Your task to perform on an android device: Is it going to rain today? Image 0: 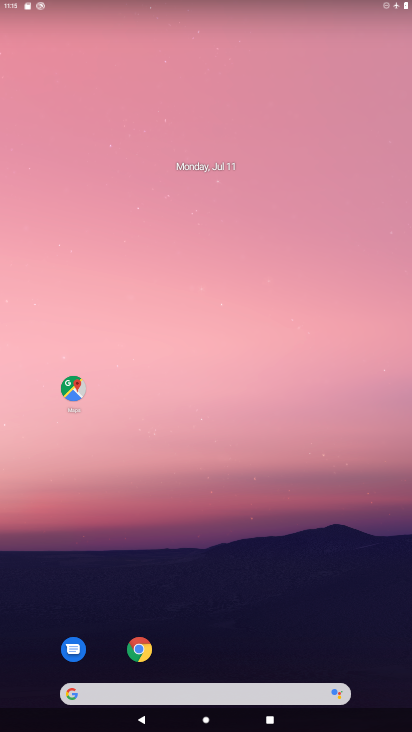
Step 0: drag from (263, 300) to (246, 156)
Your task to perform on an android device: Is it going to rain today? Image 1: 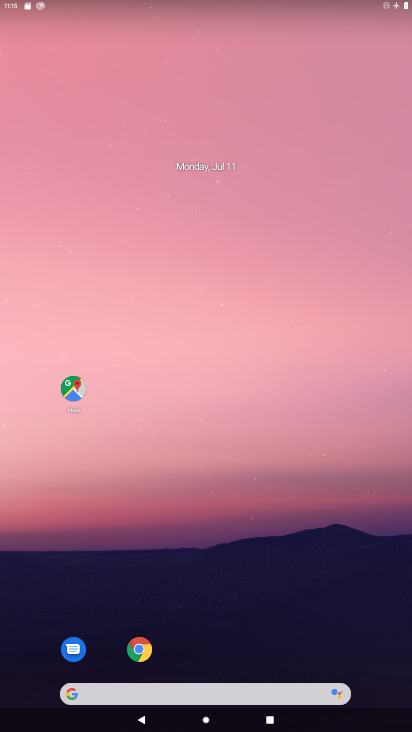
Step 1: drag from (331, 100) to (299, 16)
Your task to perform on an android device: Is it going to rain today? Image 2: 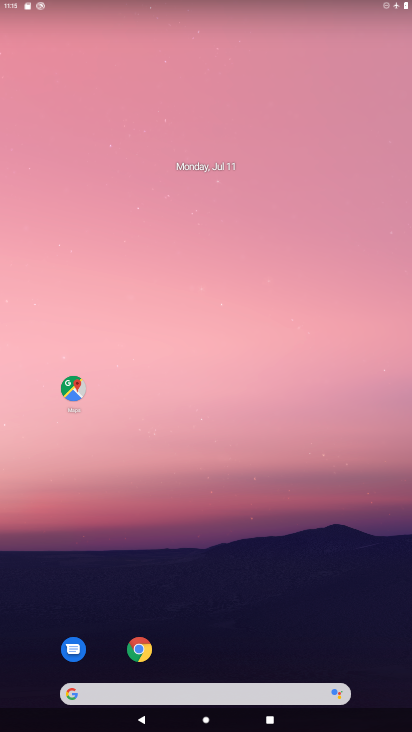
Step 2: drag from (305, 518) to (269, 1)
Your task to perform on an android device: Is it going to rain today? Image 3: 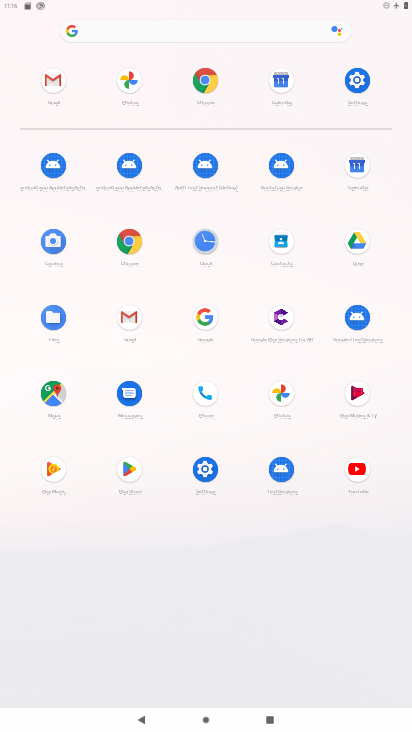
Step 3: click (206, 83)
Your task to perform on an android device: Is it going to rain today? Image 4: 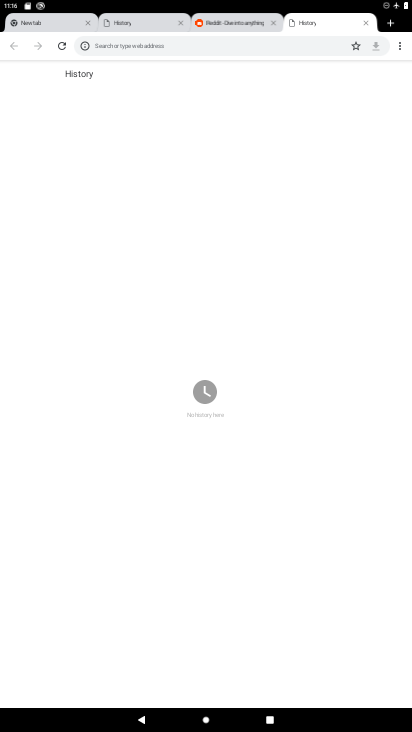
Step 4: click (182, 47)
Your task to perform on an android device: Is it going to rain today? Image 5: 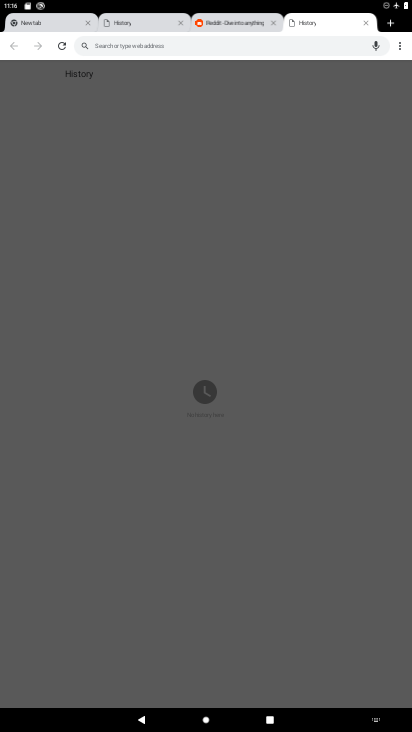
Step 5: type "weather"
Your task to perform on an android device: Is it going to rain today? Image 6: 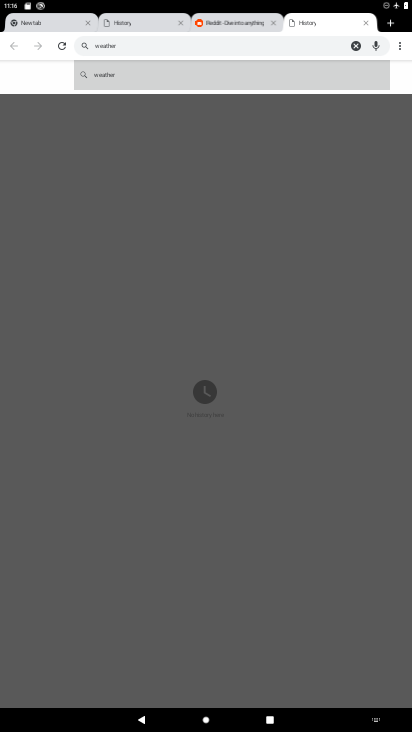
Step 6: click (151, 77)
Your task to perform on an android device: Is it going to rain today? Image 7: 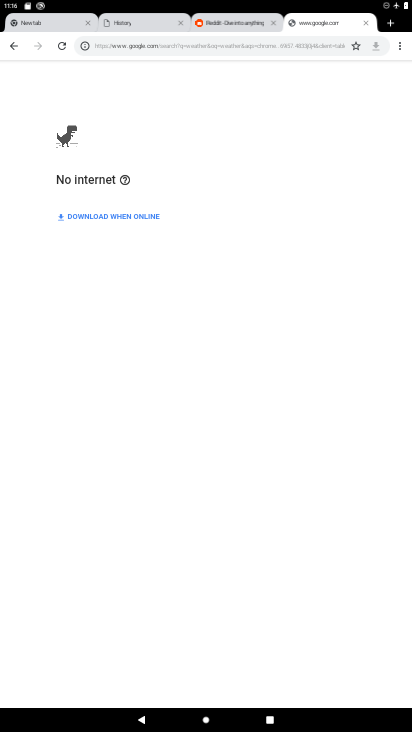
Step 7: task complete